Your task to perform on an android device: see creations saved in the google photos Image 0: 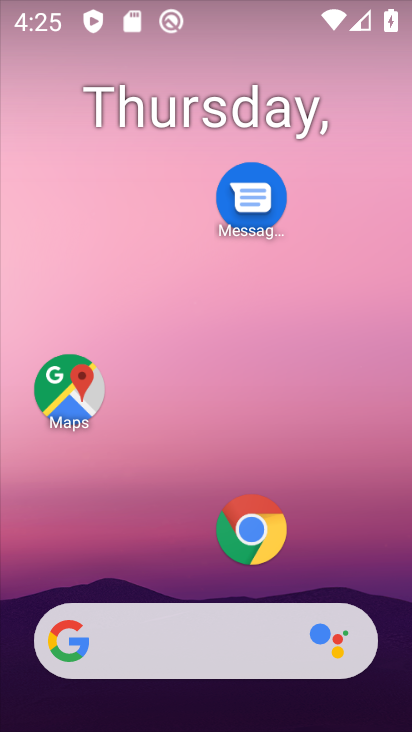
Step 0: drag from (205, 431) to (297, 44)
Your task to perform on an android device: see creations saved in the google photos Image 1: 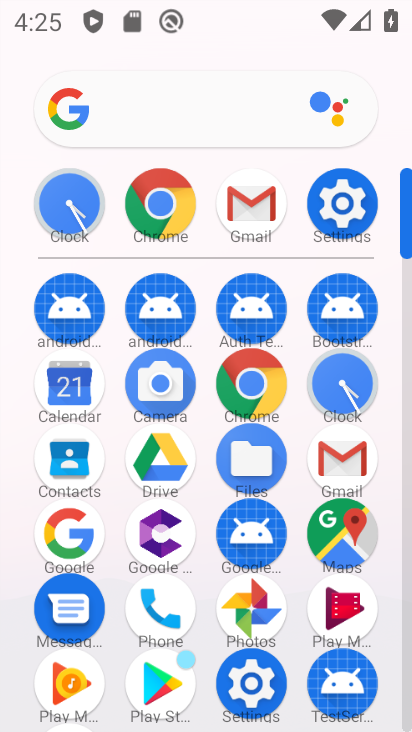
Step 1: click (346, 195)
Your task to perform on an android device: see creations saved in the google photos Image 2: 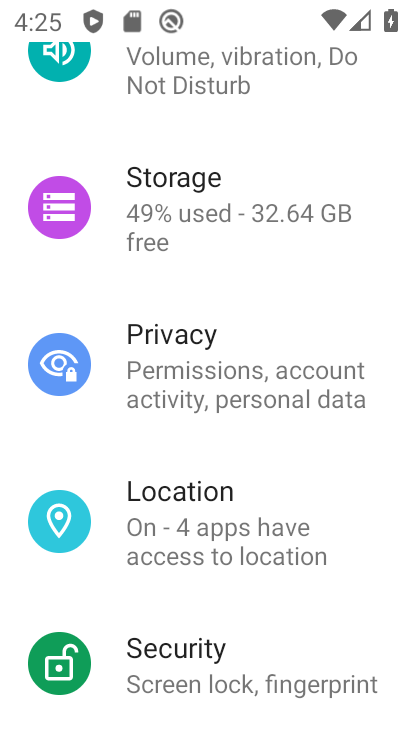
Step 2: press back button
Your task to perform on an android device: see creations saved in the google photos Image 3: 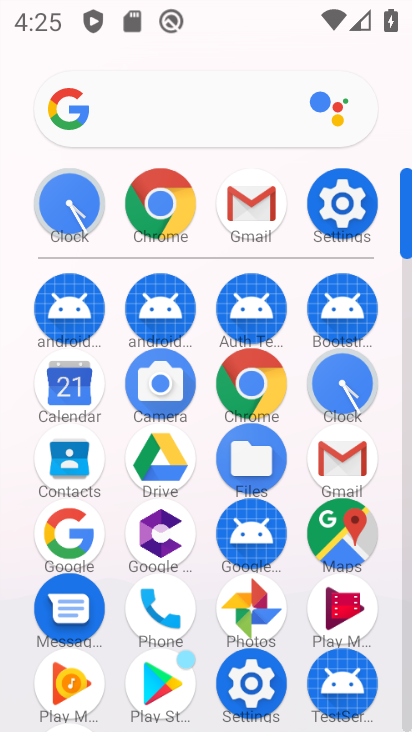
Step 3: click (252, 605)
Your task to perform on an android device: see creations saved in the google photos Image 4: 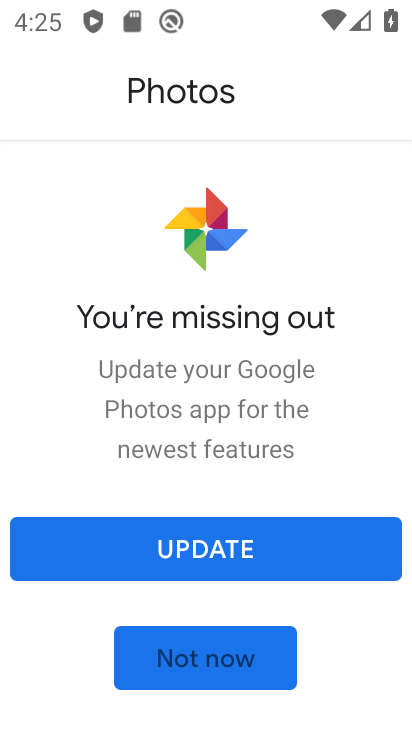
Step 4: click (205, 660)
Your task to perform on an android device: see creations saved in the google photos Image 5: 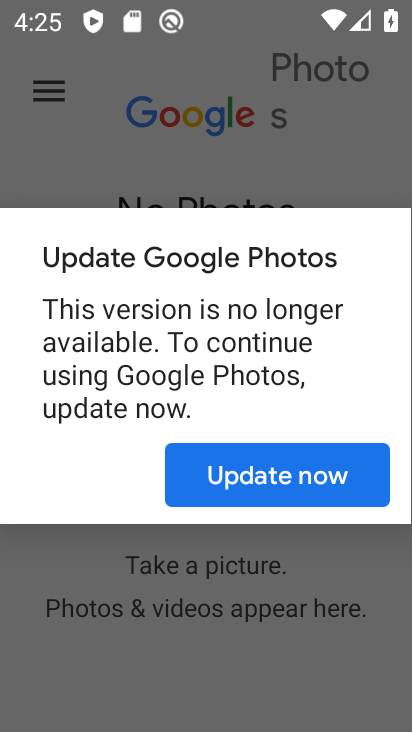
Step 5: click (267, 483)
Your task to perform on an android device: see creations saved in the google photos Image 6: 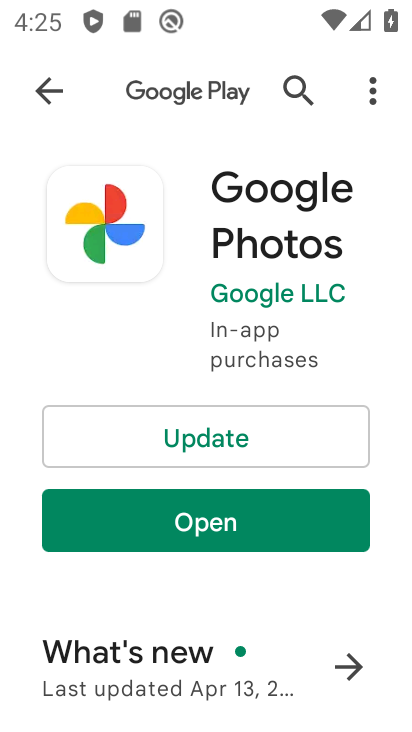
Step 6: click (239, 522)
Your task to perform on an android device: see creations saved in the google photos Image 7: 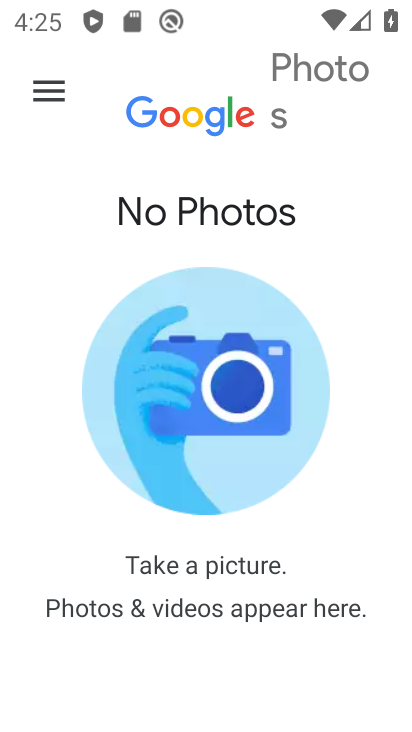
Step 7: click (43, 93)
Your task to perform on an android device: see creations saved in the google photos Image 8: 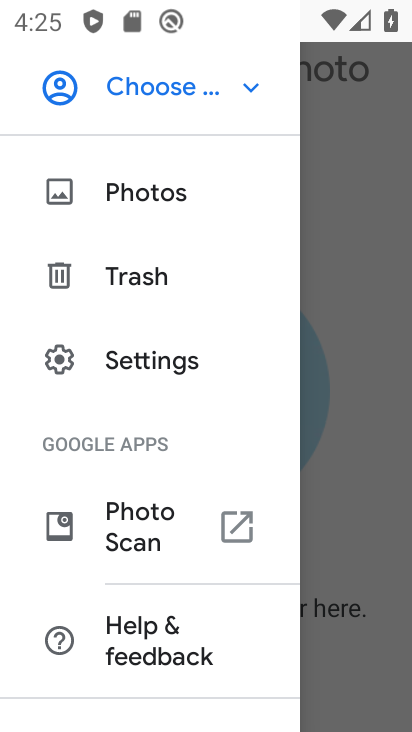
Step 8: drag from (173, 200) to (210, 663)
Your task to perform on an android device: see creations saved in the google photos Image 9: 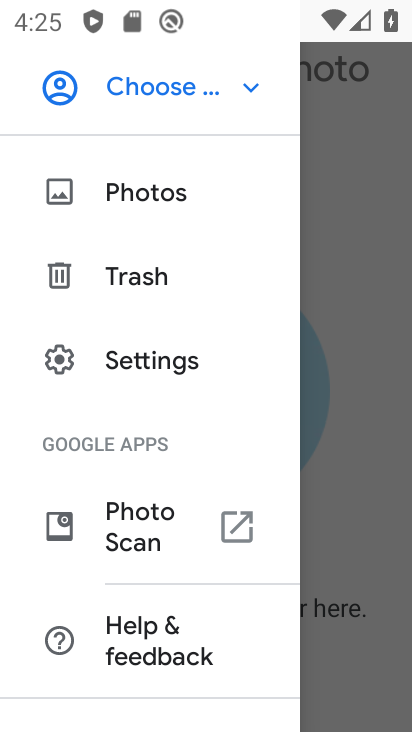
Step 9: click (238, 85)
Your task to perform on an android device: see creations saved in the google photos Image 10: 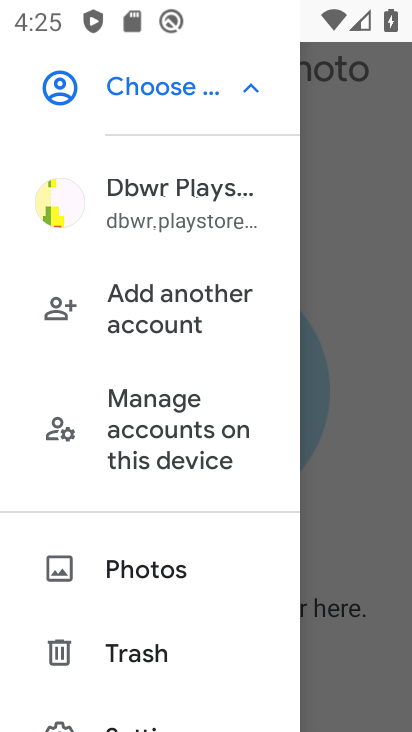
Step 10: click (140, 81)
Your task to perform on an android device: see creations saved in the google photos Image 11: 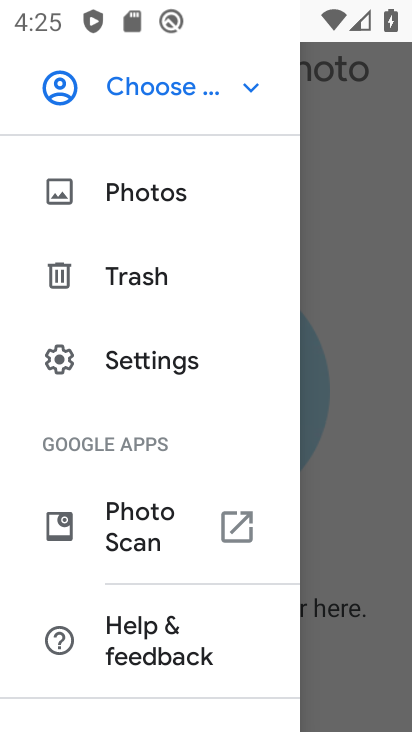
Step 11: click (143, 192)
Your task to perform on an android device: see creations saved in the google photos Image 12: 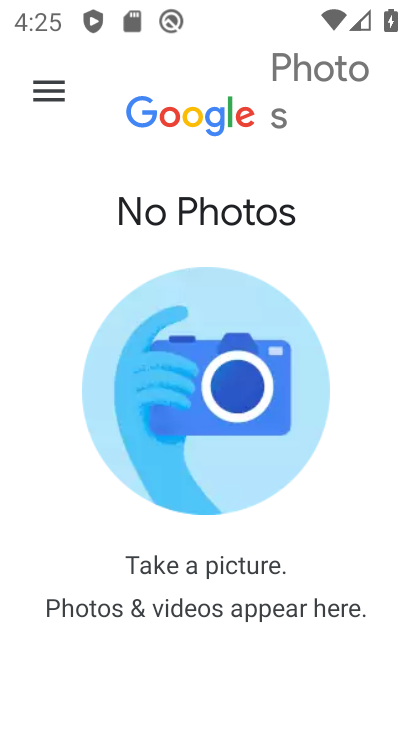
Step 12: task complete